Your task to perform on an android device: delete location history Image 0: 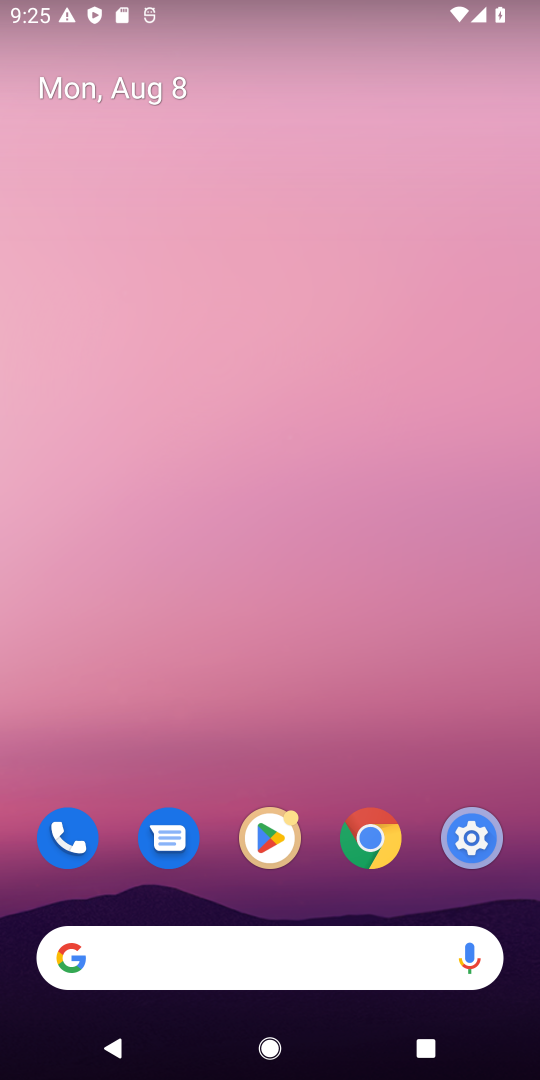
Step 0: drag from (280, 717) to (408, 110)
Your task to perform on an android device: delete location history Image 1: 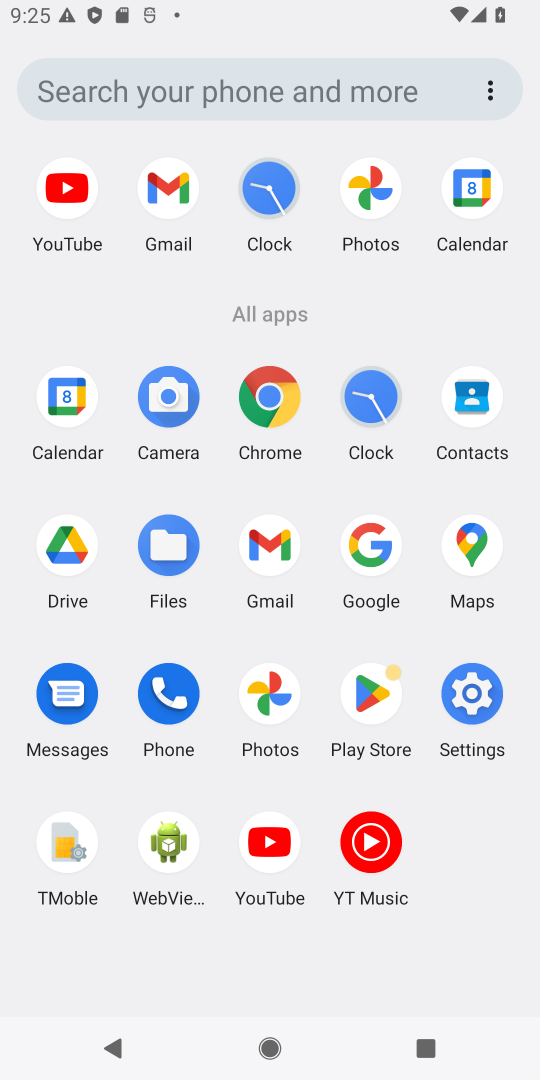
Step 1: click (476, 549)
Your task to perform on an android device: delete location history Image 2: 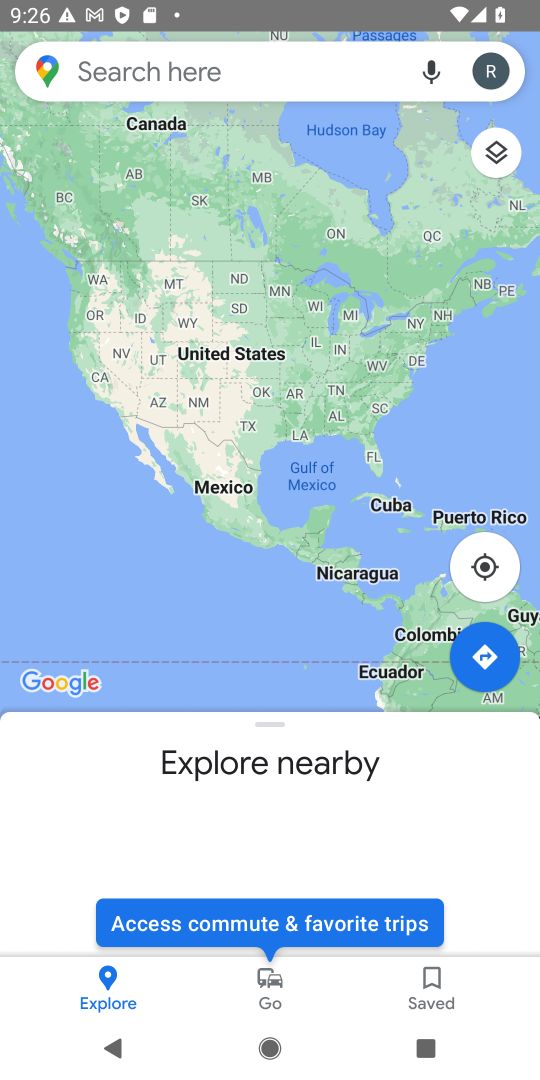
Step 2: click (497, 67)
Your task to perform on an android device: delete location history Image 3: 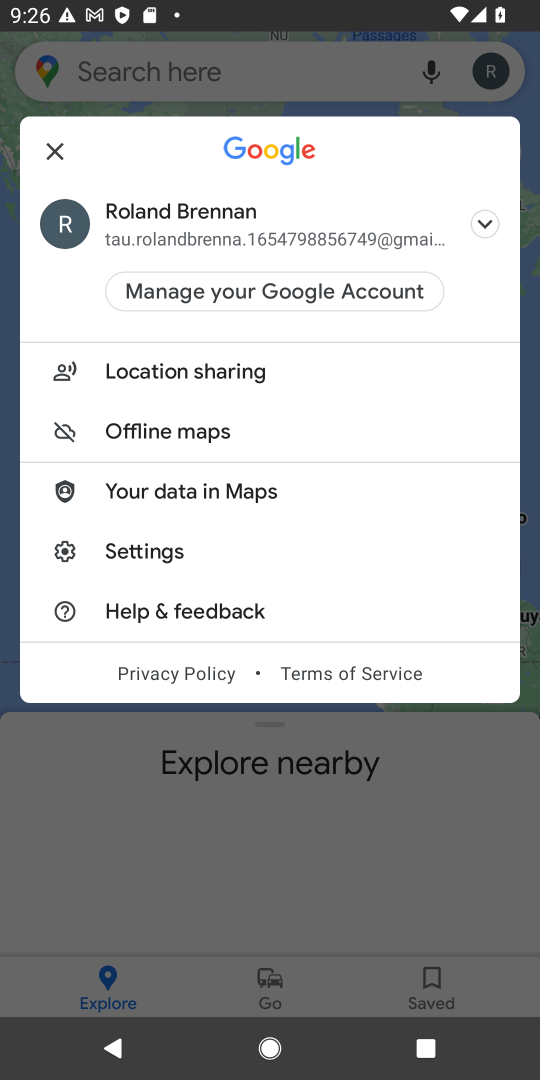
Step 3: click (131, 544)
Your task to perform on an android device: delete location history Image 4: 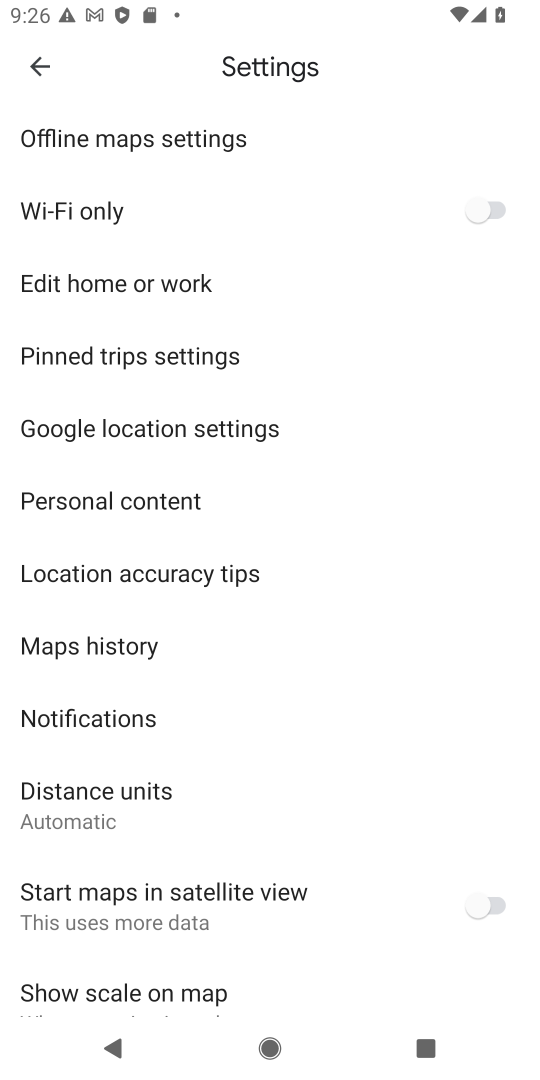
Step 4: click (120, 642)
Your task to perform on an android device: delete location history Image 5: 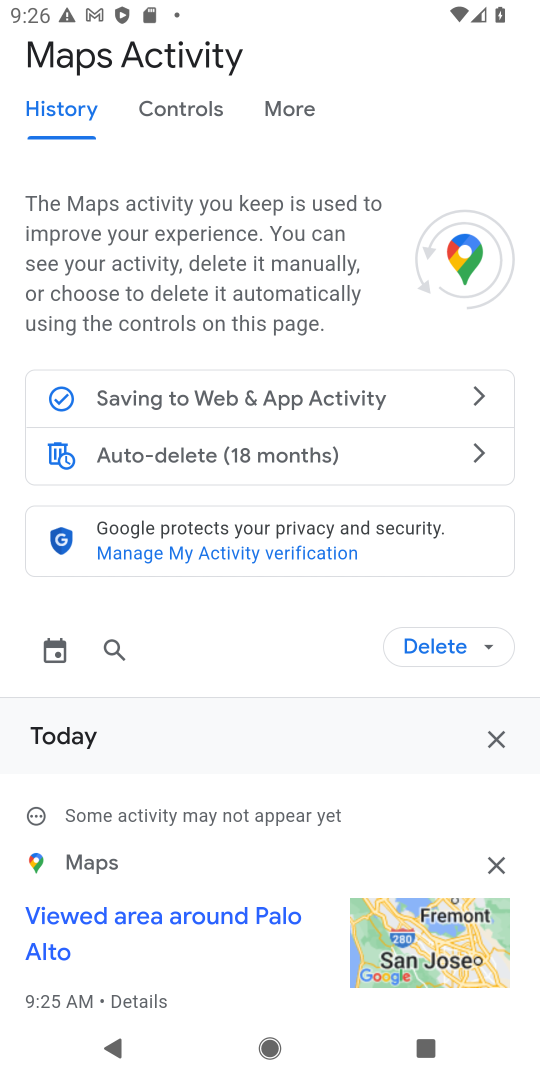
Step 5: click (480, 635)
Your task to perform on an android device: delete location history Image 6: 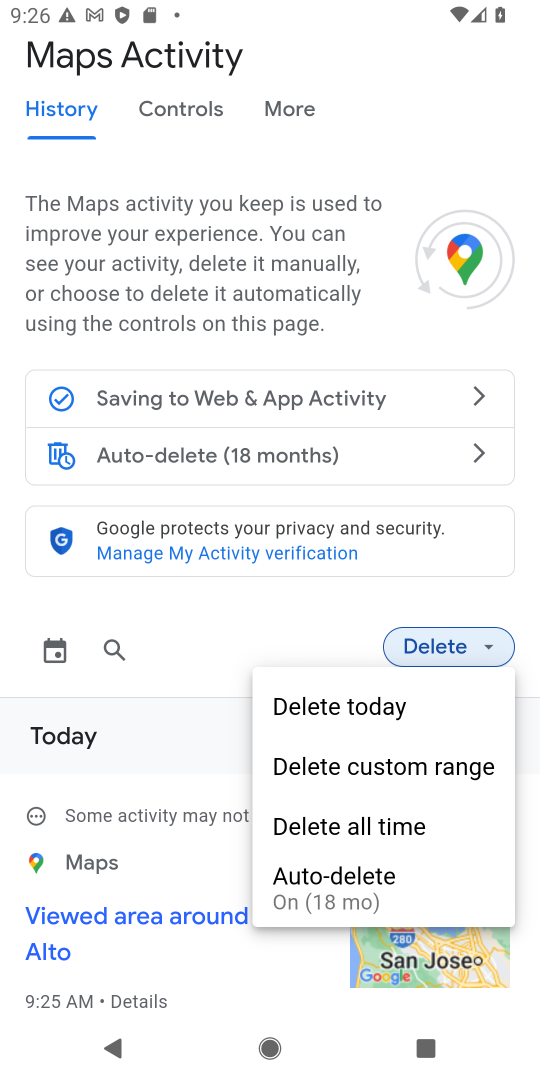
Step 6: click (357, 832)
Your task to perform on an android device: delete location history Image 7: 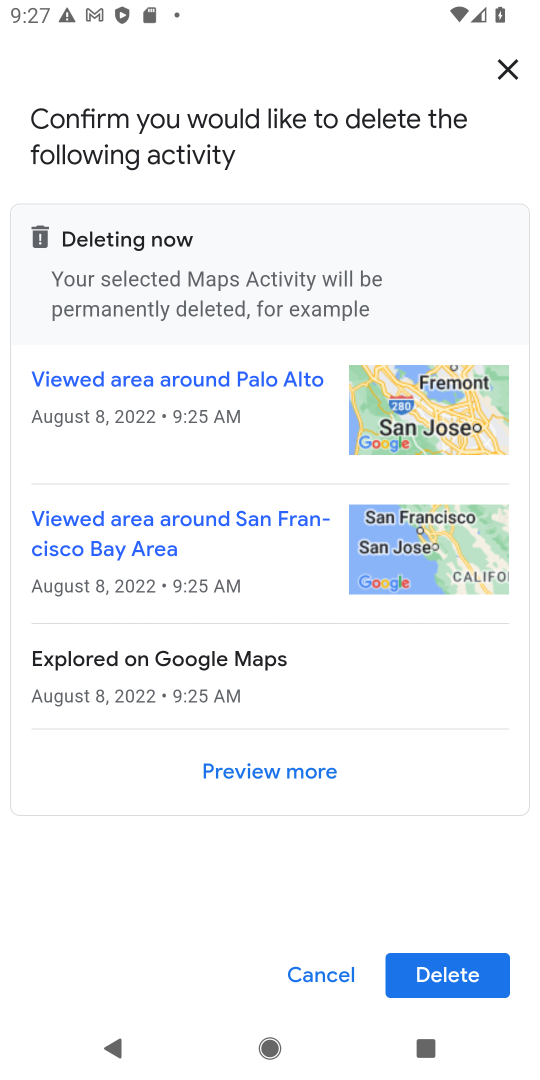
Step 7: click (476, 979)
Your task to perform on an android device: delete location history Image 8: 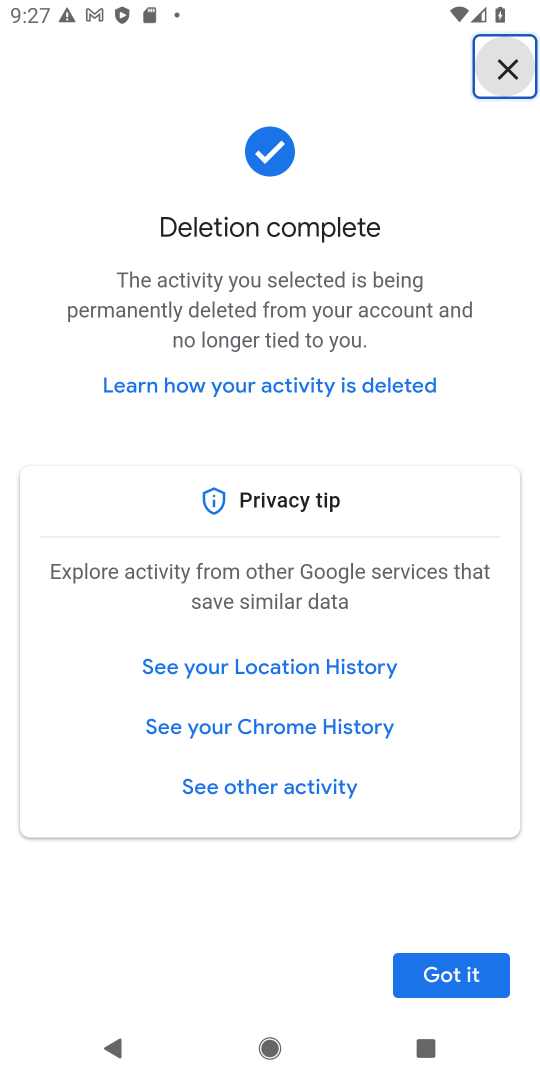
Step 8: task complete